Your task to perform on an android device: Open Wikipedia Image 0: 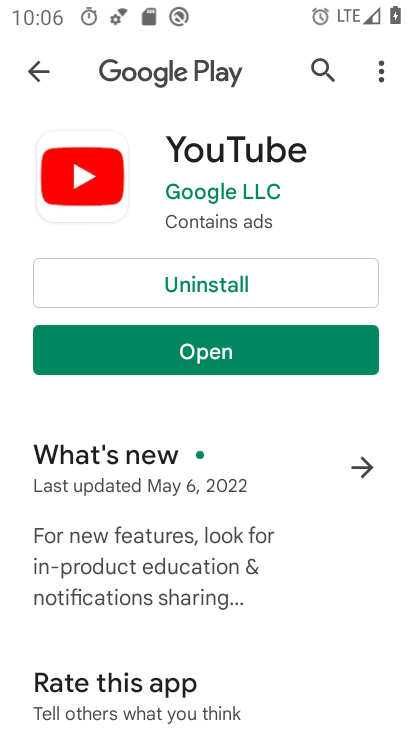
Step 0: press home button
Your task to perform on an android device: Open Wikipedia Image 1: 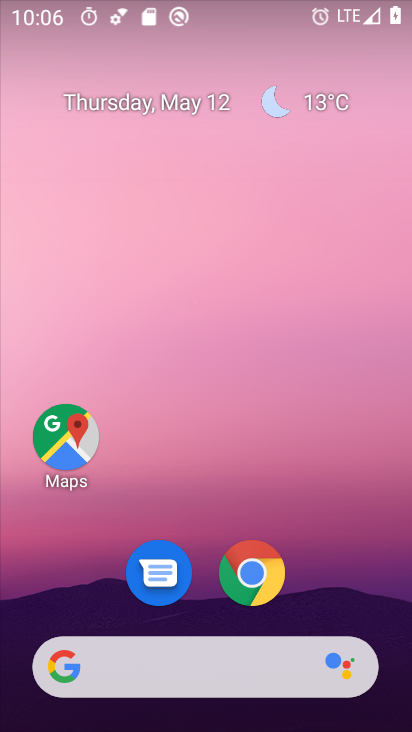
Step 1: click (252, 555)
Your task to perform on an android device: Open Wikipedia Image 2: 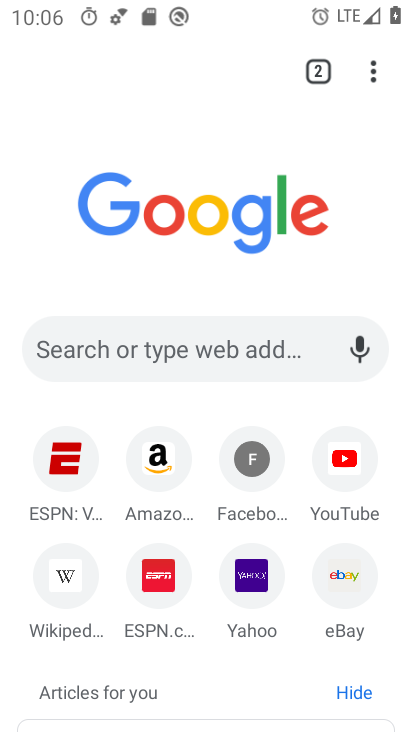
Step 2: click (202, 343)
Your task to perform on an android device: Open Wikipedia Image 3: 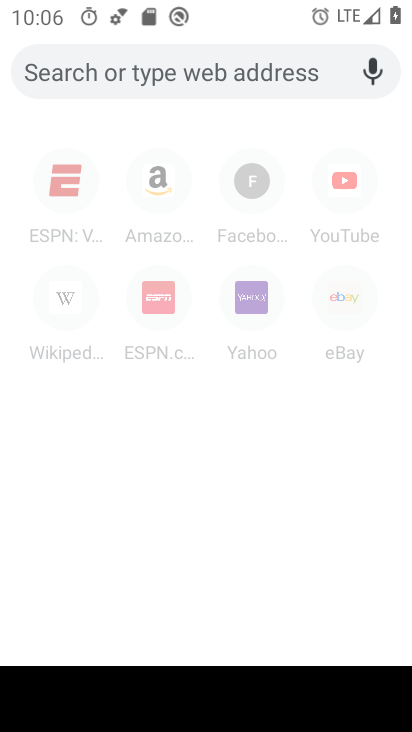
Step 3: type "Wikipedia"
Your task to perform on an android device: Open Wikipedia Image 4: 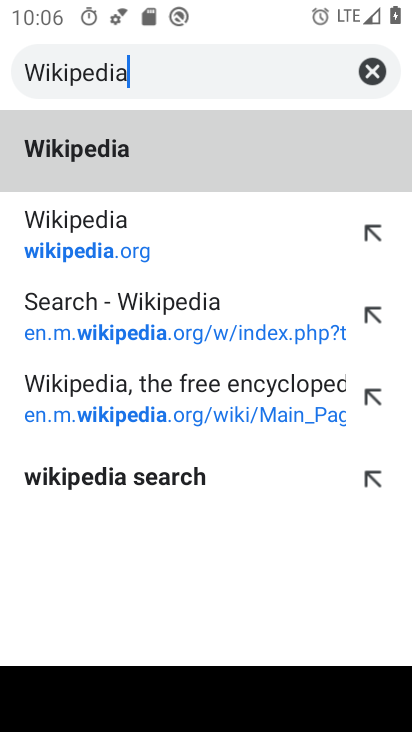
Step 4: click (56, 217)
Your task to perform on an android device: Open Wikipedia Image 5: 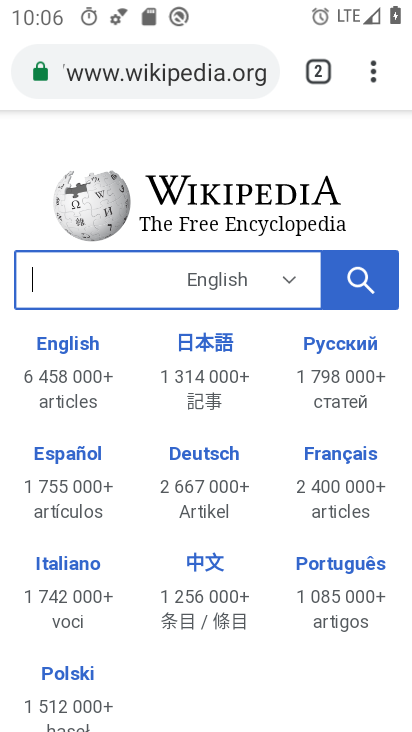
Step 5: task complete